Your task to perform on an android device: see tabs open on other devices in the chrome app Image 0: 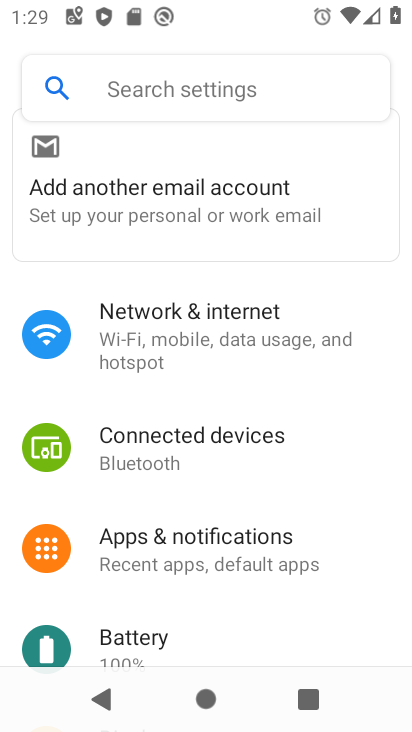
Step 0: press home button
Your task to perform on an android device: see tabs open on other devices in the chrome app Image 1: 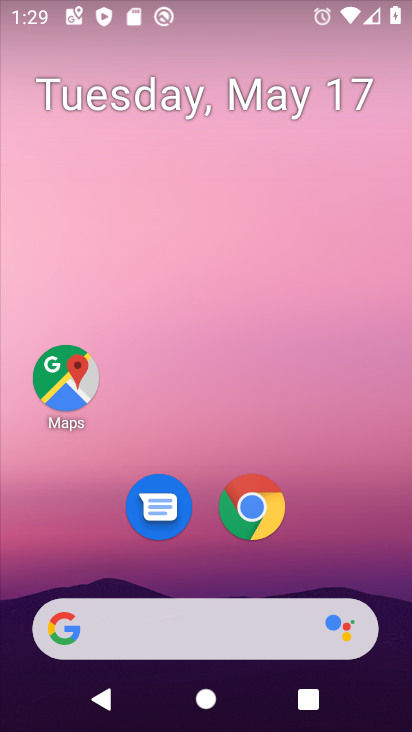
Step 1: click (241, 524)
Your task to perform on an android device: see tabs open on other devices in the chrome app Image 2: 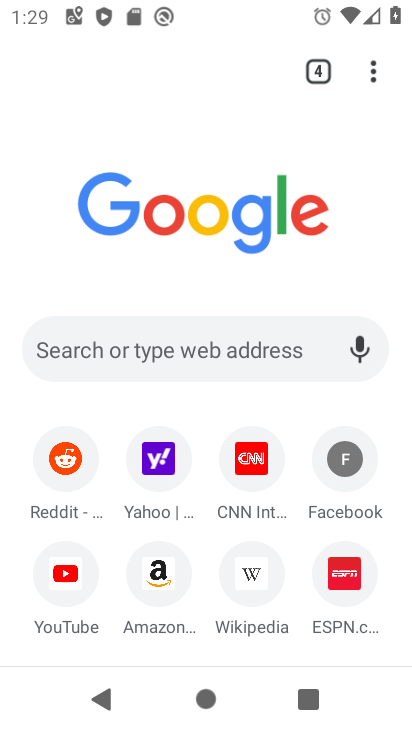
Step 2: click (367, 64)
Your task to perform on an android device: see tabs open on other devices in the chrome app Image 3: 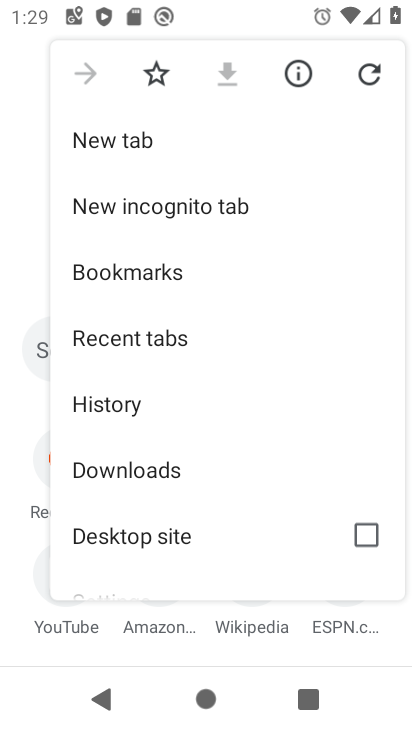
Step 3: click (132, 403)
Your task to perform on an android device: see tabs open on other devices in the chrome app Image 4: 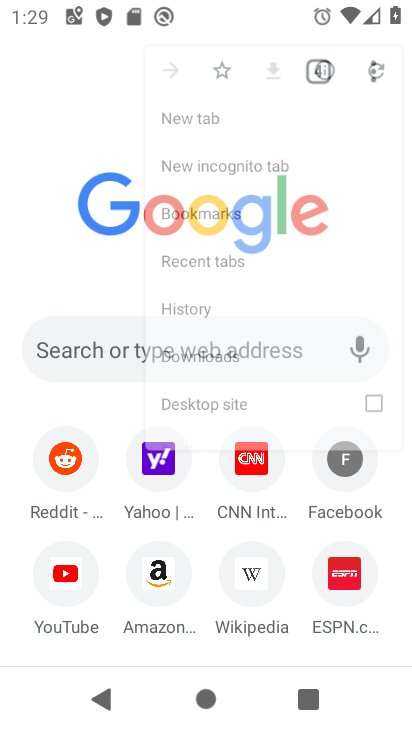
Step 4: click (126, 402)
Your task to perform on an android device: see tabs open on other devices in the chrome app Image 5: 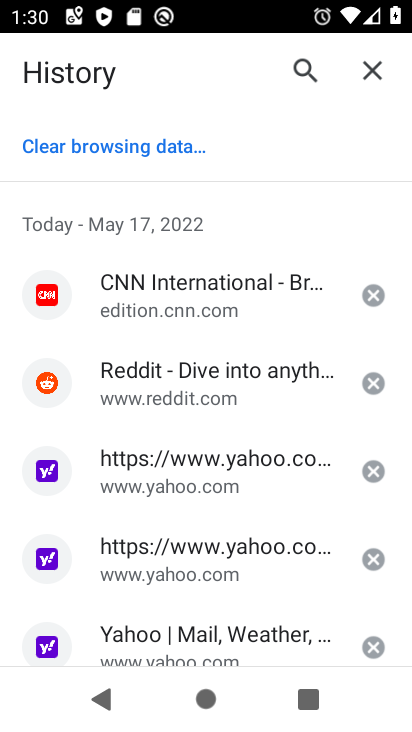
Step 5: task complete